Your task to perform on an android device: find which apps use the phone's location Image 0: 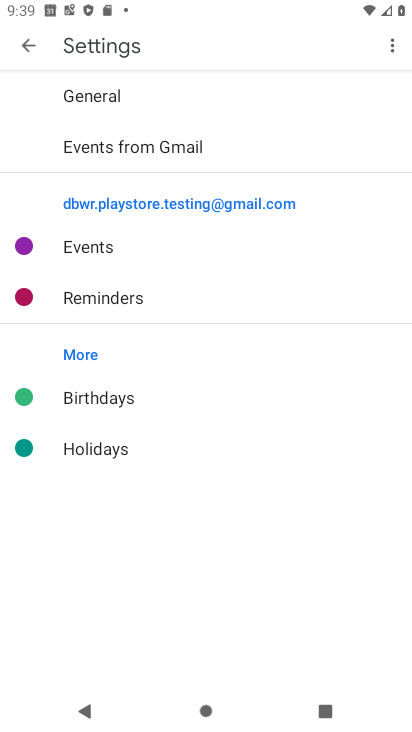
Step 0: press home button
Your task to perform on an android device: find which apps use the phone's location Image 1: 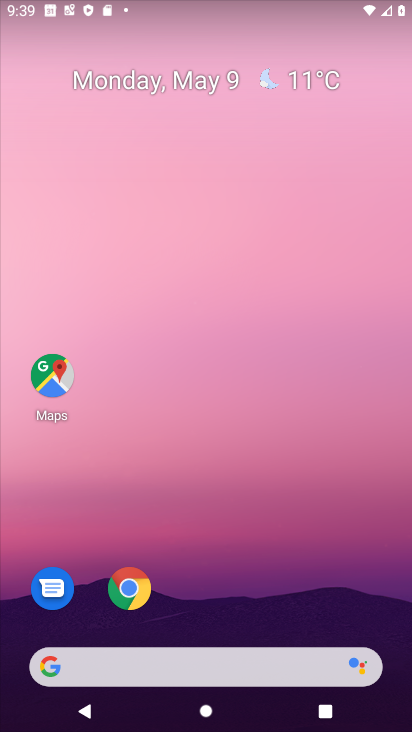
Step 1: drag from (214, 676) to (240, 24)
Your task to perform on an android device: find which apps use the phone's location Image 2: 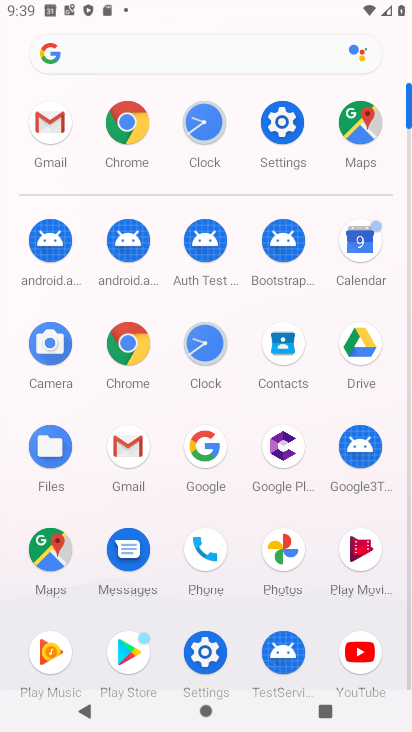
Step 2: click (280, 127)
Your task to perform on an android device: find which apps use the phone's location Image 3: 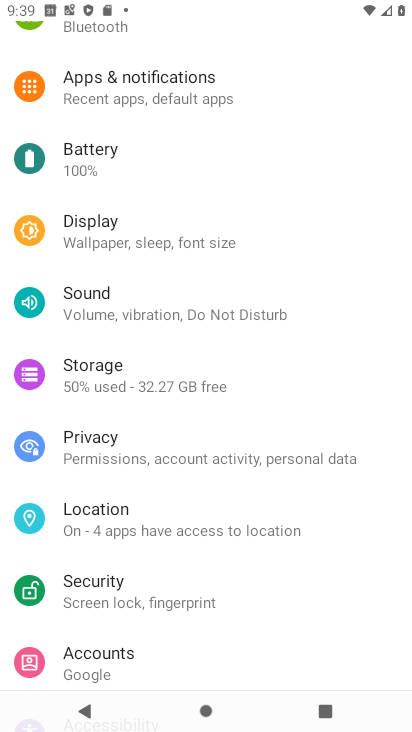
Step 3: click (111, 520)
Your task to perform on an android device: find which apps use the phone's location Image 4: 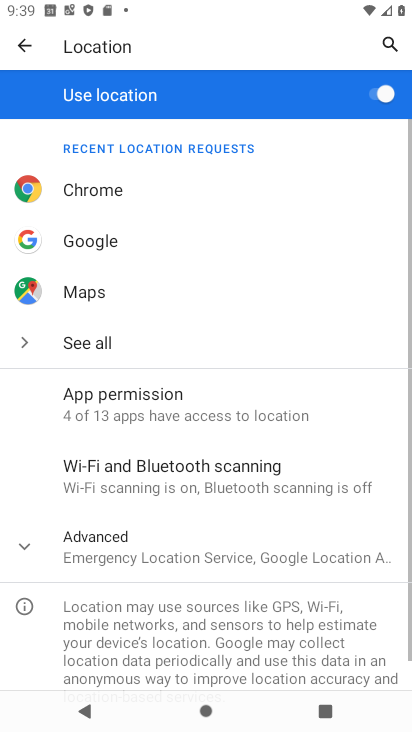
Step 4: click (123, 403)
Your task to perform on an android device: find which apps use the phone's location Image 5: 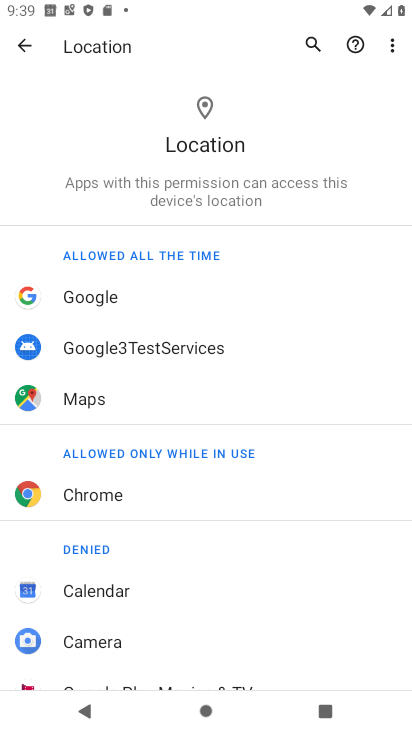
Step 5: drag from (173, 630) to (241, 268)
Your task to perform on an android device: find which apps use the phone's location Image 6: 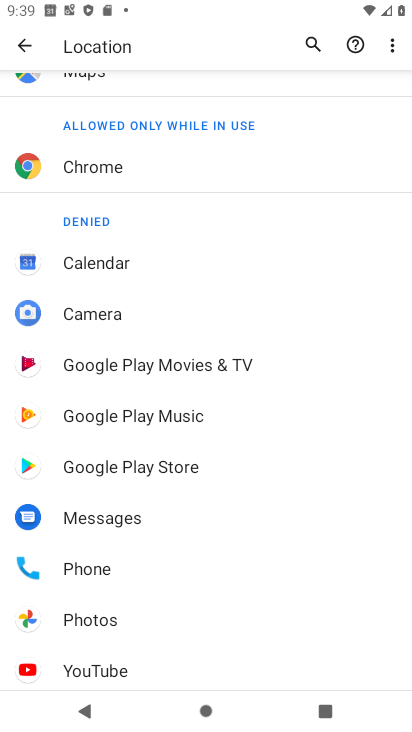
Step 6: click (111, 569)
Your task to perform on an android device: find which apps use the phone's location Image 7: 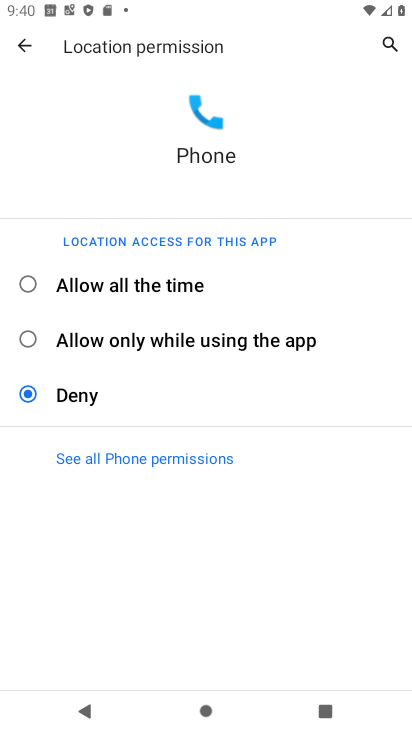
Step 7: task complete